Your task to perform on an android device: remove spam from my inbox in the gmail app Image 0: 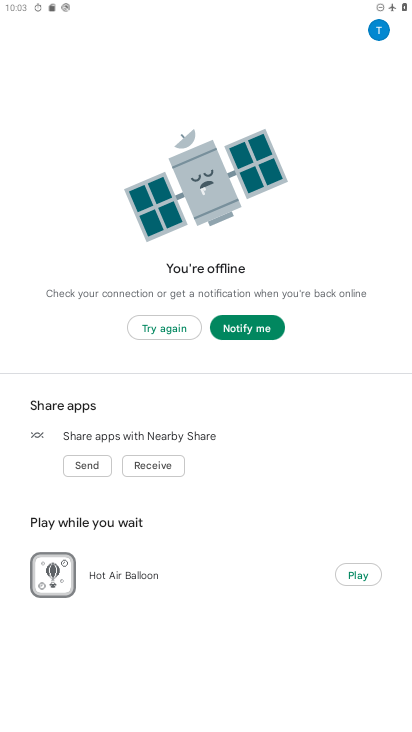
Step 0: press home button
Your task to perform on an android device: remove spam from my inbox in the gmail app Image 1: 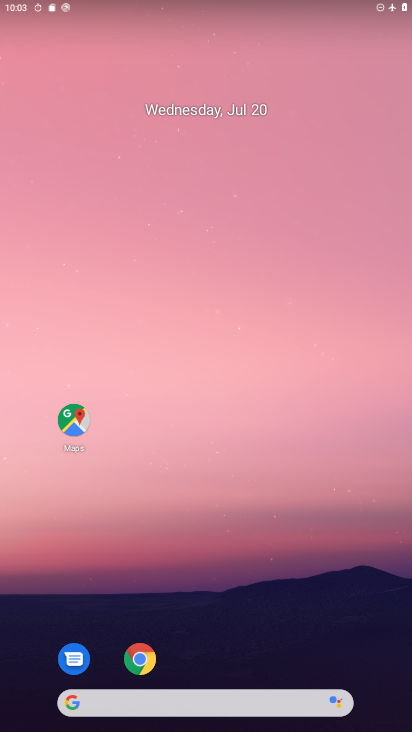
Step 1: drag from (215, 644) to (225, 140)
Your task to perform on an android device: remove spam from my inbox in the gmail app Image 2: 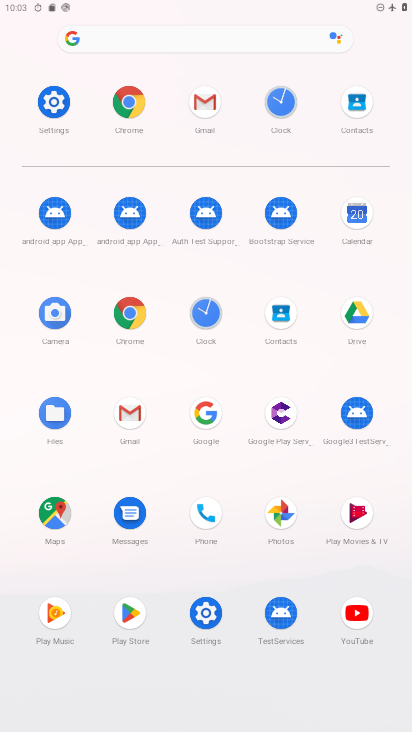
Step 2: click (215, 105)
Your task to perform on an android device: remove spam from my inbox in the gmail app Image 3: 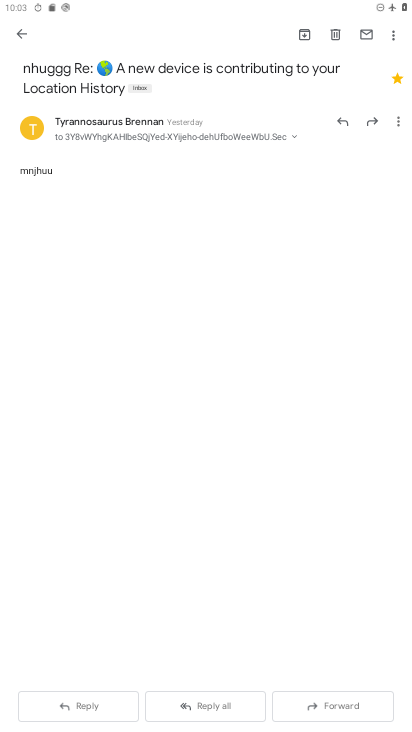
Step 3: click (27, 30)
Your task to perform on an android device: remove spam from my inbox in the gmail app Image 4: 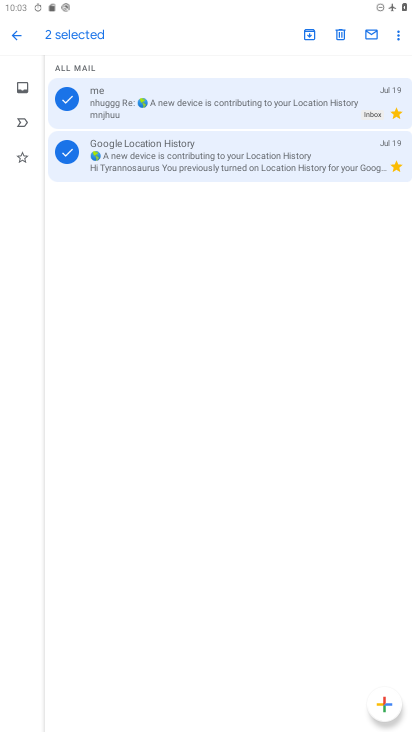
Step 4: click (27, 30)
Your task to perform on an android device: remove spam from my inbox in the gmail app Image 5: 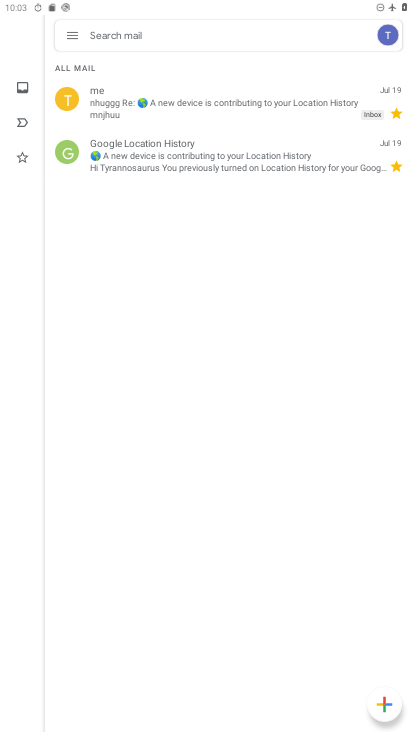
Step 5: click (75, 34)
Your task to perform on an android device: remove spam from my inbox in the gmail app Image 6: 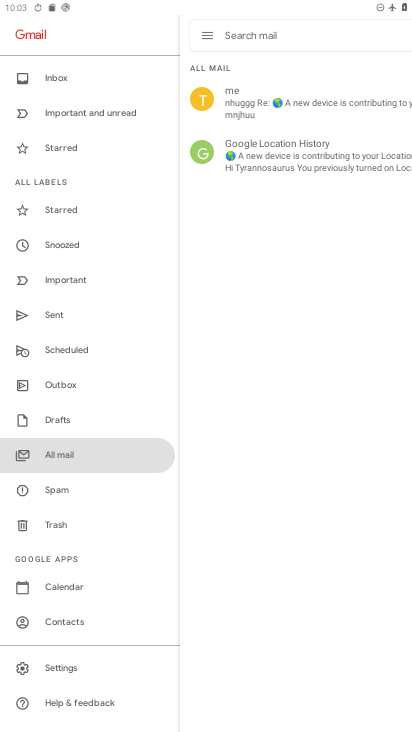
Step 6: click (78, 85)
Your task to perform on an android device: remove spam from my inbox in the gmail app Image 7: 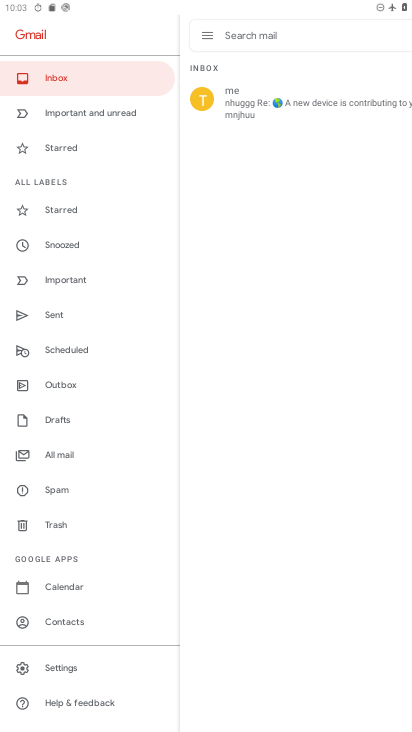
Step 7: task complete